Your task to perform on an android device: Open maps Image 0: 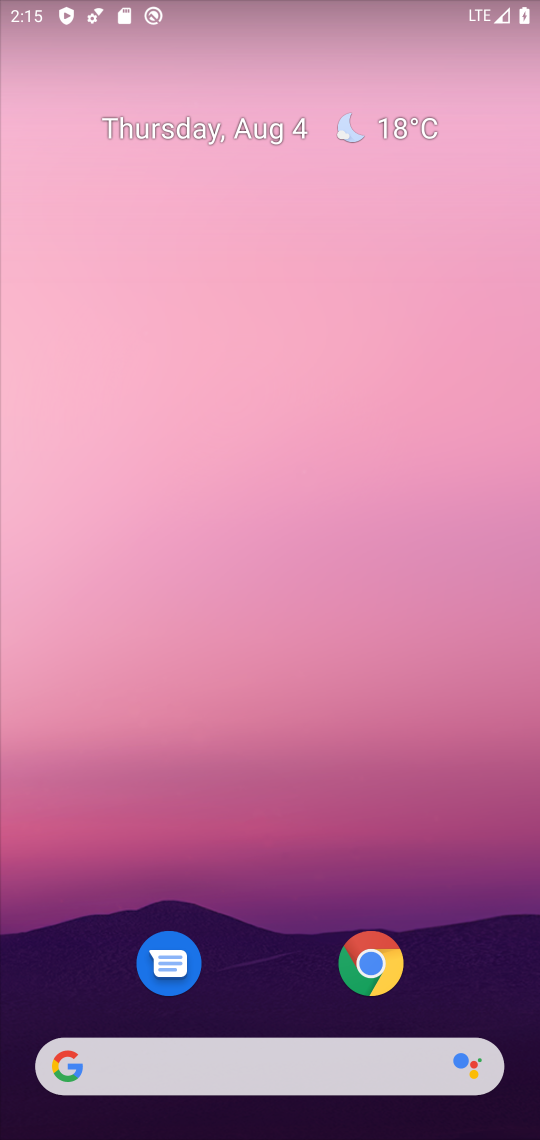
Step 0: drag from (253, 816) to (173, 0)
Your task to perform on an android device: Open maps Image 1: 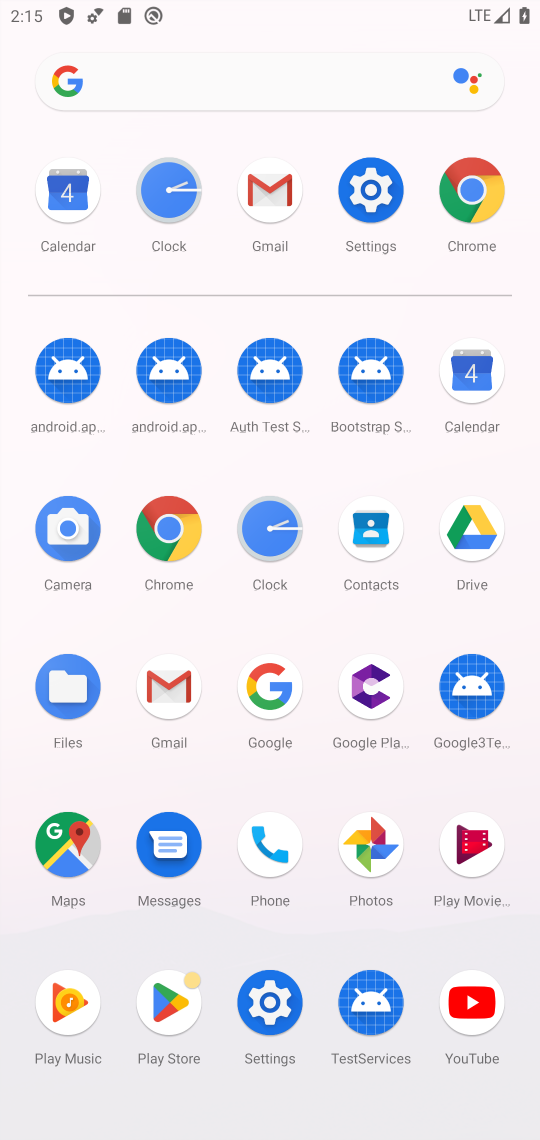
Step 1: click (67, 851)
Your task to perform on an android device: Open maps Image 2: 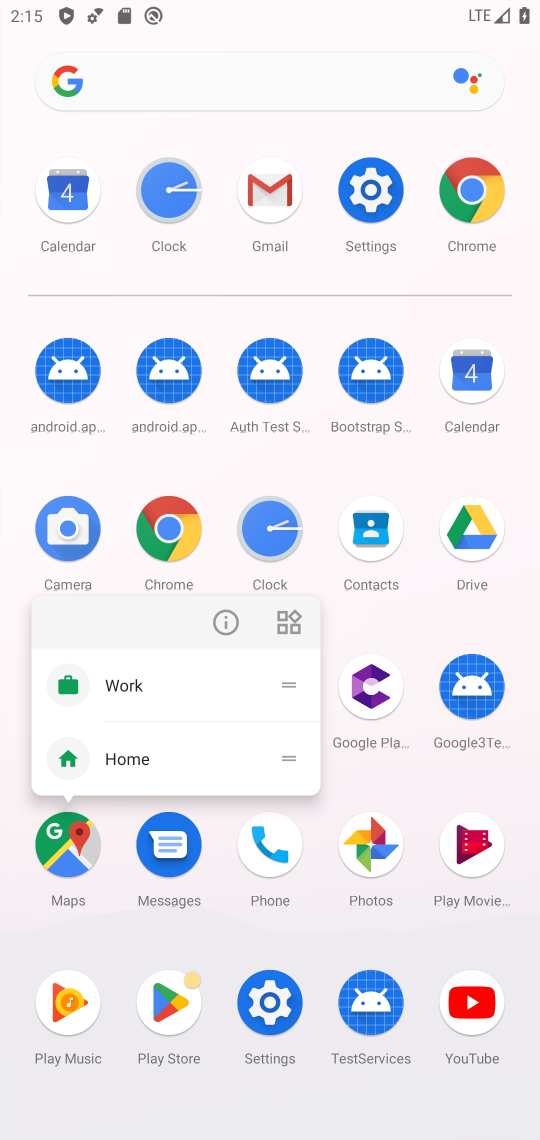
Step 2: click (77, 876)
Your task to perform on an android device: Open maps Image 3: 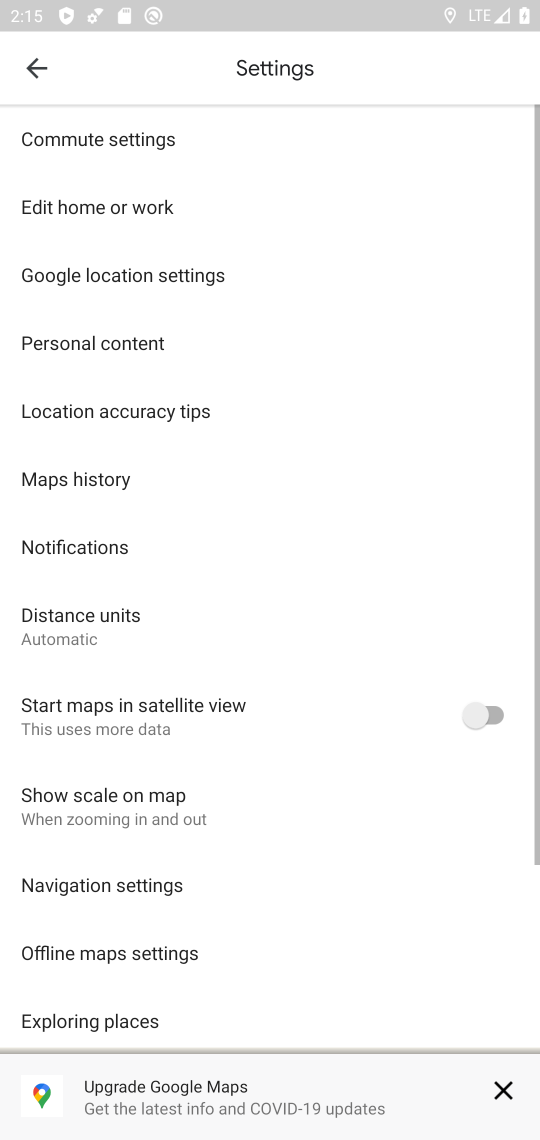
Step 3: task complete